Your task to perform on an android device: Set the phone to "Do not disturb". Image 0: 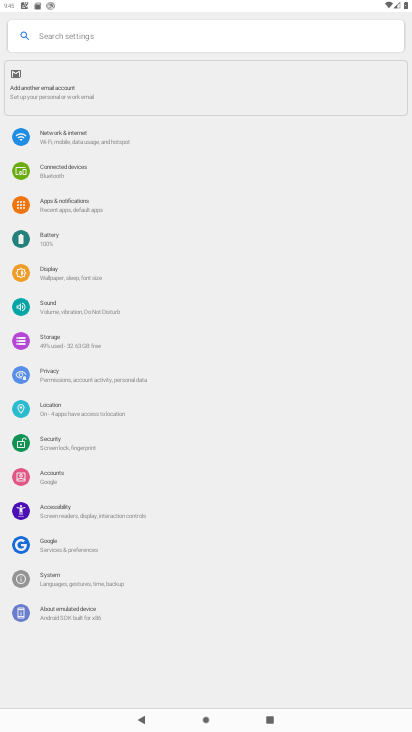
Step 0: click (78, 304)
Your task to perform on an android device: Set the phone to "Do not disturb". Image 1: 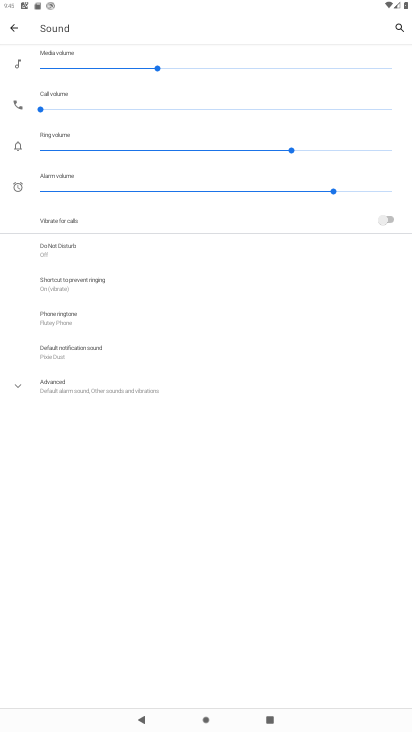
Step 1: click (72, 243)
Your task to perform on an android device: Set the phone to "Do not disturb". Image 2: 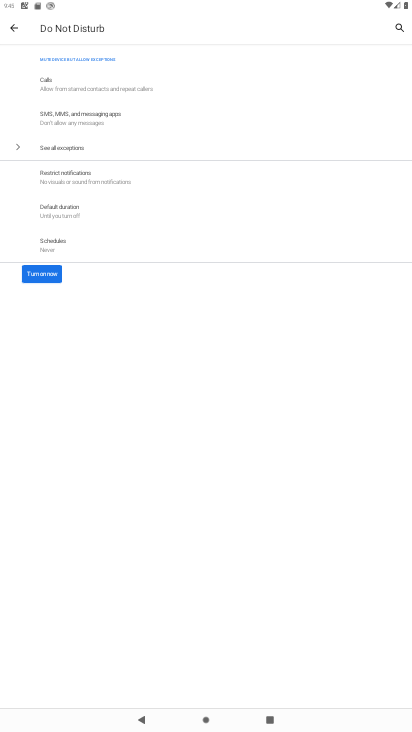
Step 2: click (46, 281)
Your task to perform on an android device: Set the phone to "Do not disturb". Image 3: 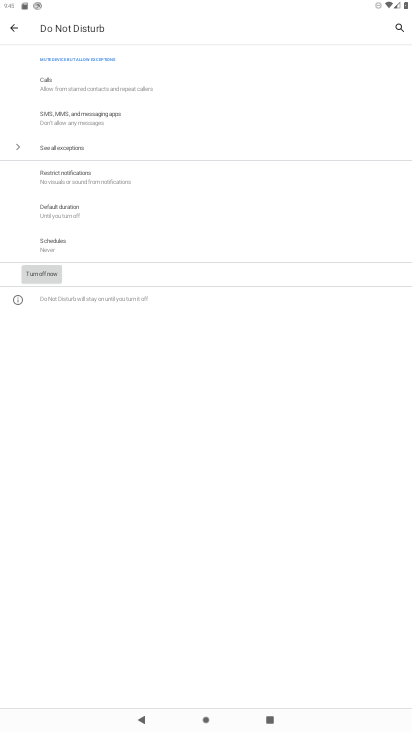
Step 3: task complete